Your task to perform on an android device: Open Google Chrome and open the bookmarks view Image 0: 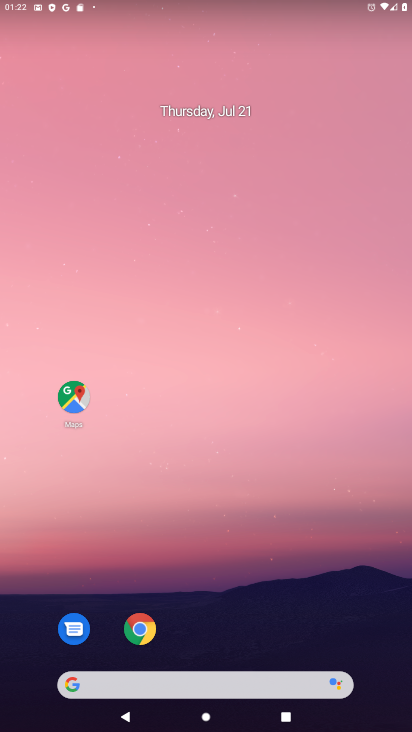
Step 0: click (136, 628)
Your task to perform on an android device: Open Google Chrome and open the bookmarks view Image 1: 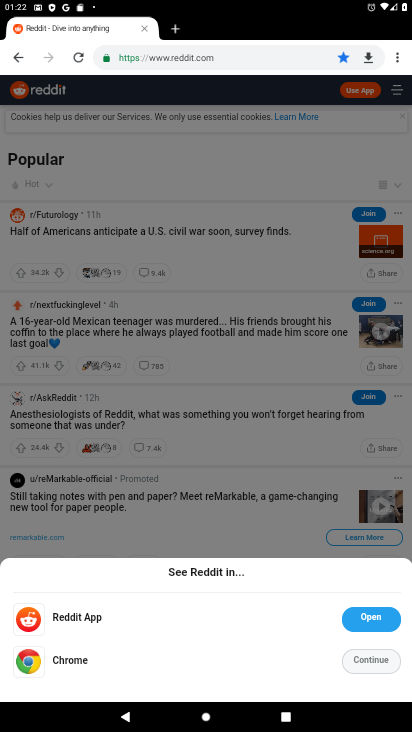
Step 1: click (391, 53)
Your task to perform on an android device: Open Google Chrome and open the bookmarks view Image 2: 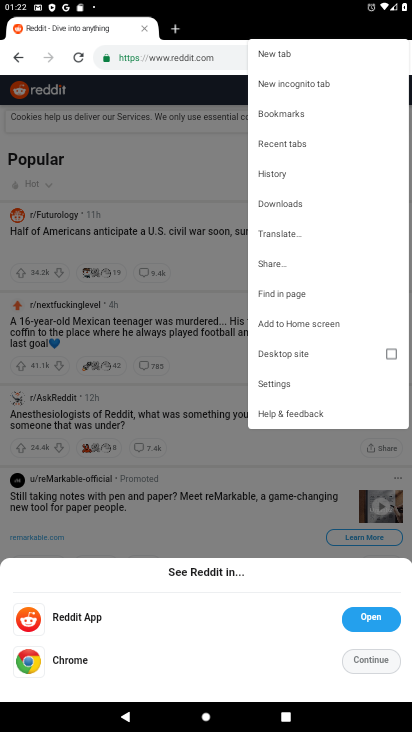
Step 2: click (273, 120)
Your task to perform on an android device: Open Google Chrome and open the bookmarks view Image 3: 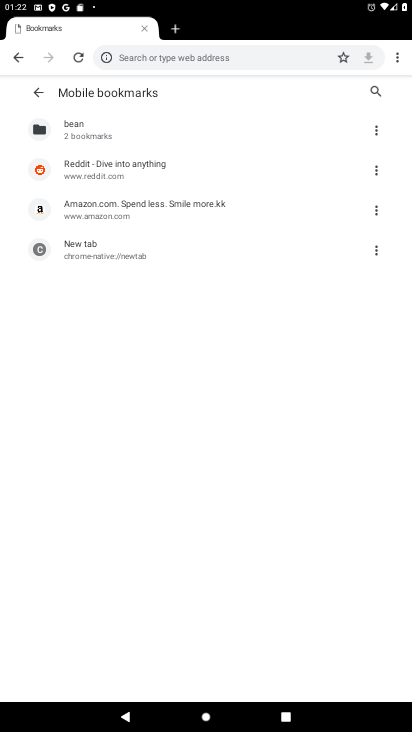
Step 3: click (106, 175)
Your task to perform on an android device: Open Google Chrome and open the bookmarks view Image 4: 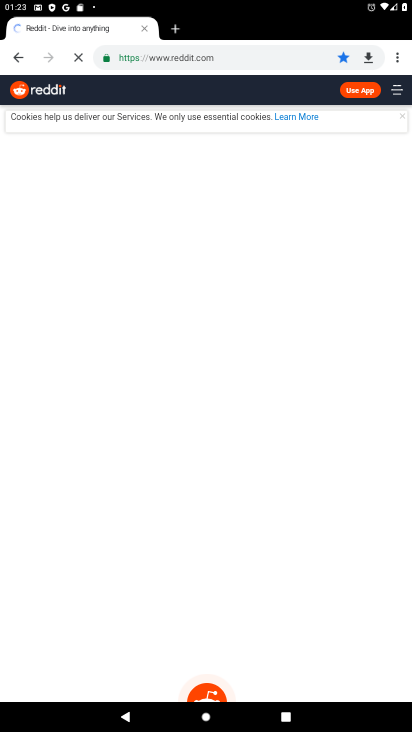
Step 4: task complete